Your task to perform on an android device: Where can I buy a nice beach umbrella? Image 0: 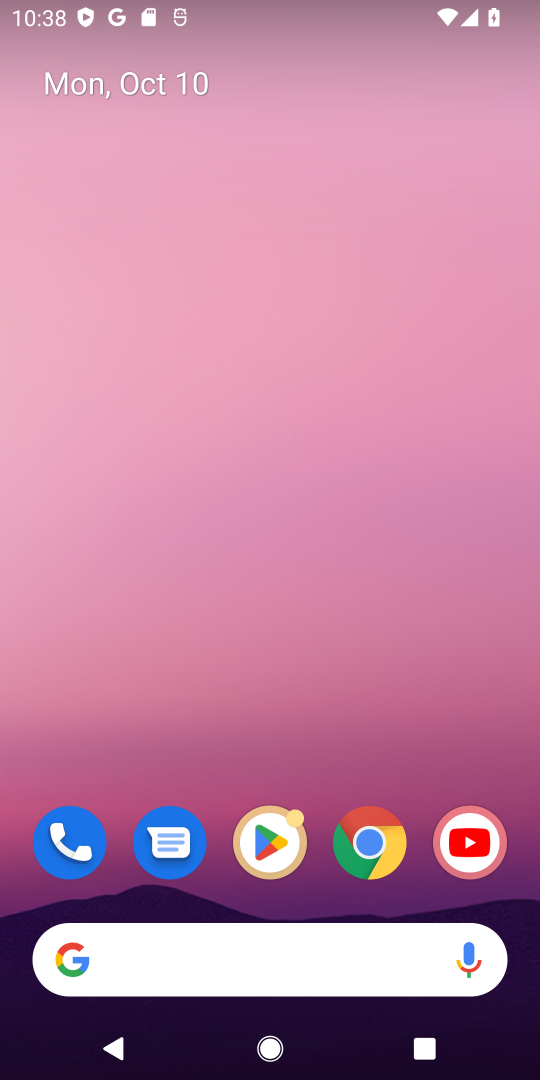
Step 0: click (181, 980)
Your task to perform on an android device: Where can I buy a nice beach umbrella? Image 1: 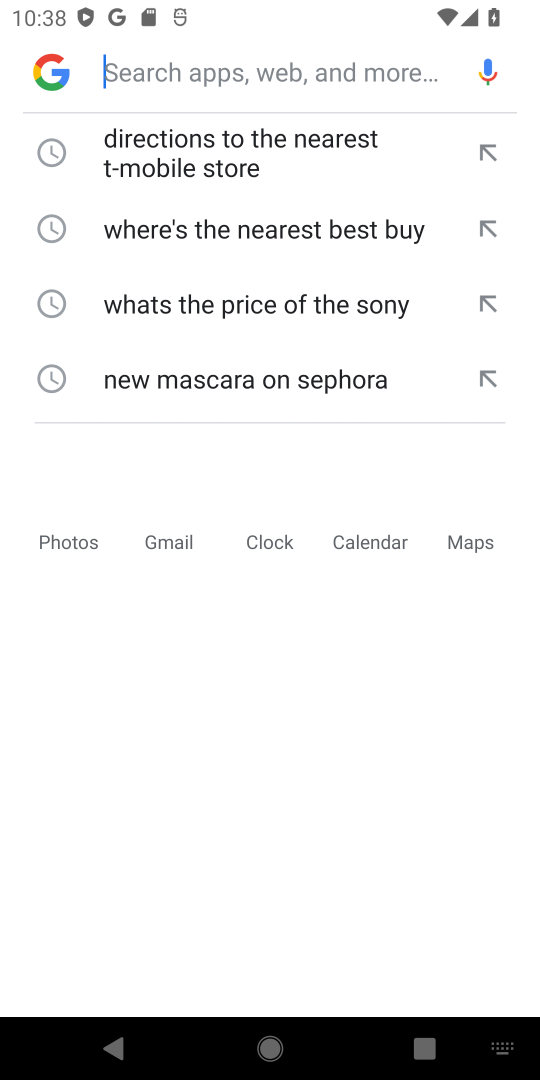
Step 1: click (198, 69)
Your task to perform on an android device: Where can I buy a nice beach umbrella? Image 2: 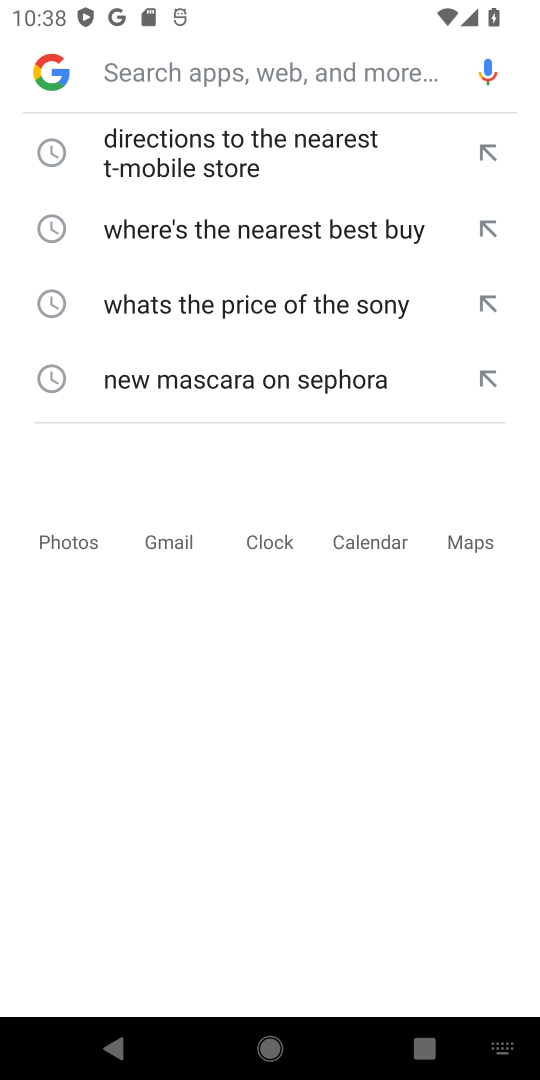
Step 2: type "Where can I buy a nice beach umbrella?"
Your task to perform on an android device: Where can I buy a nice beach umbrella? Image 3: 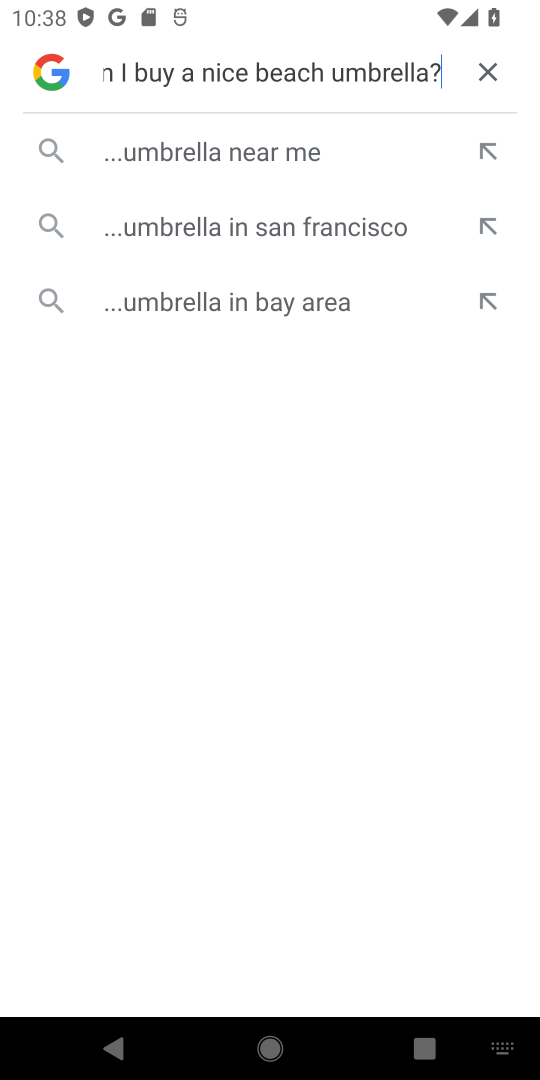
Step 3: click (245, 157)
Your task to perform on an android device: Where can I buy a nice beach umbrella? Image 4: 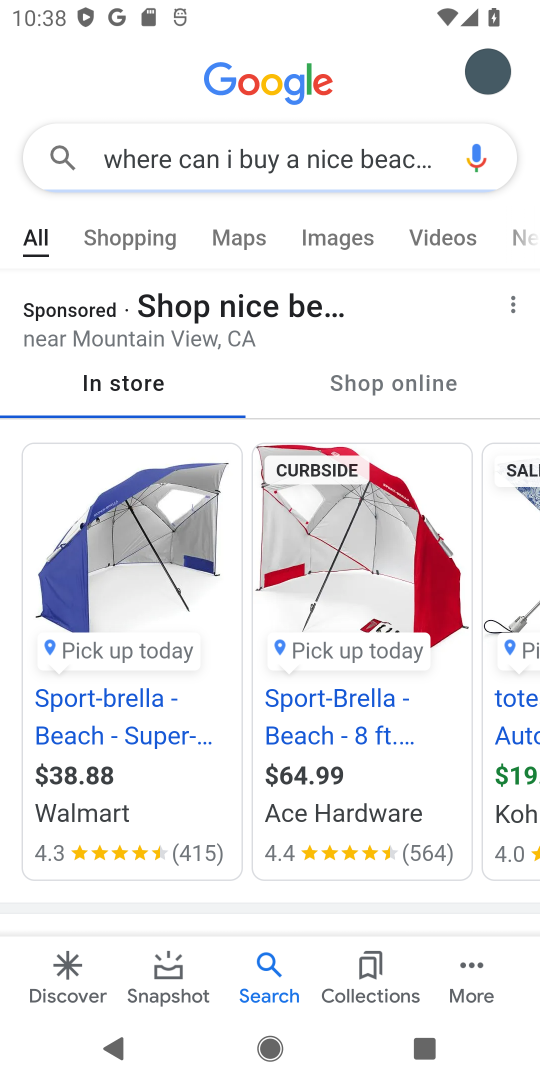
Step 4: task complete